Your task to perform on an android device: Clear all items from cart on bestbuy.com. Search for rayovac triple a on bestbuy.com, select the first entry, add it to the cart, then select checkout. Image 0: 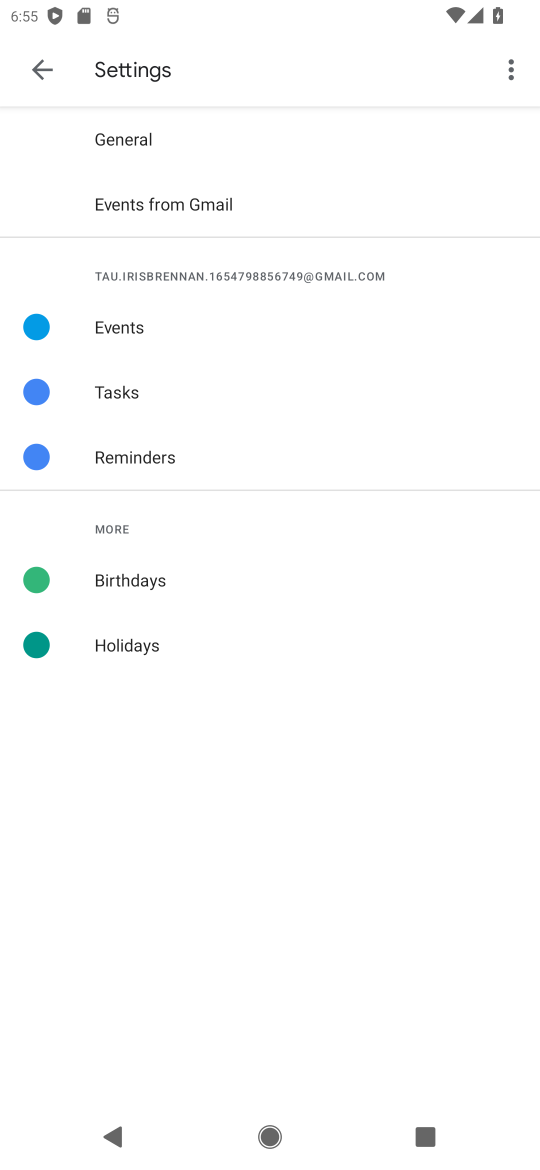
Step 0: press home button
Your task to perform on an android device: Clear all items from cart on bestbuy.com. Search for rayovac triple a on bestbuy.com, select the first entry, add it to the cart, then select checkout. Image 1: 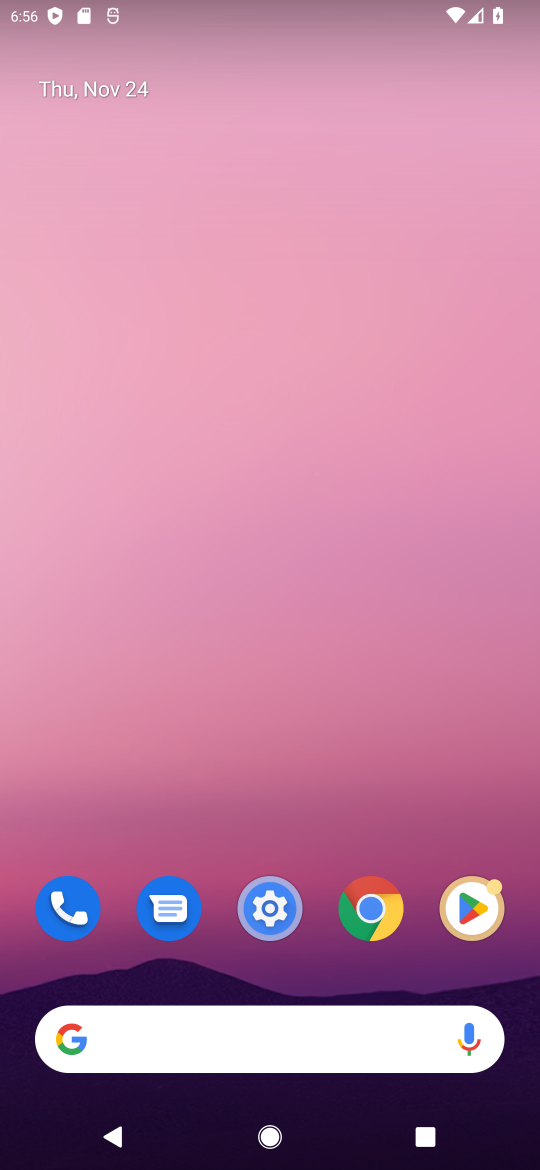
Step 1: click (159, 1041)
Your task to perform on an android device: Clear all items from cart on bestbuy.com. Search for rayovac triple a on bestbuy.com, select the first entry, add it to the cart, then select checkout. Image 2: 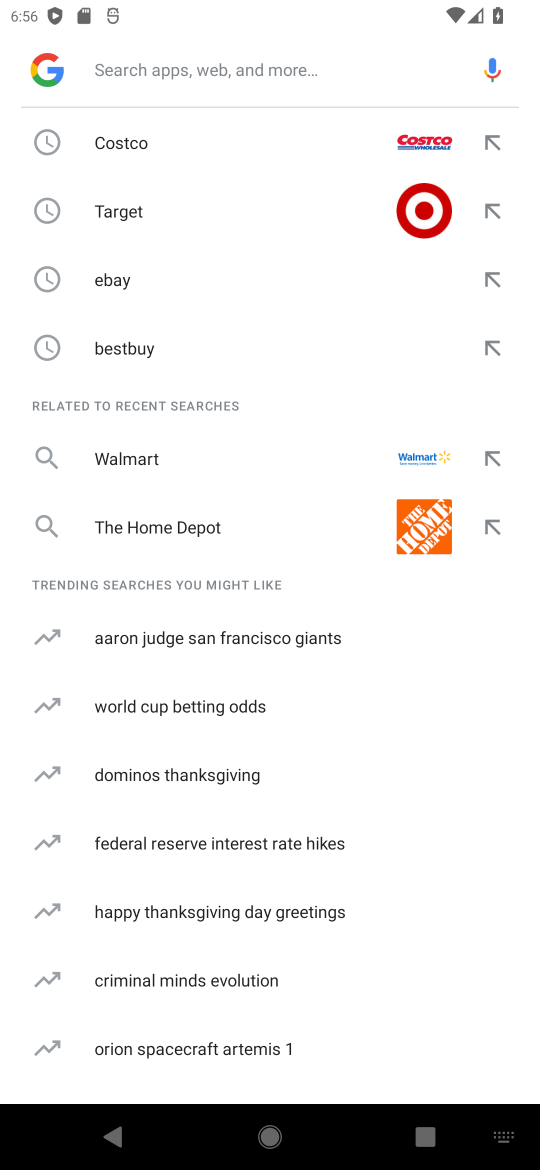
Step 2: type "bestbuy"
Your task to perform on an android device: Clear all items from cart on bestbuy.com. Search for rayovac triple a on bestbuy.com, select the first entry, add it to the cart, then select checkout. Image 3: 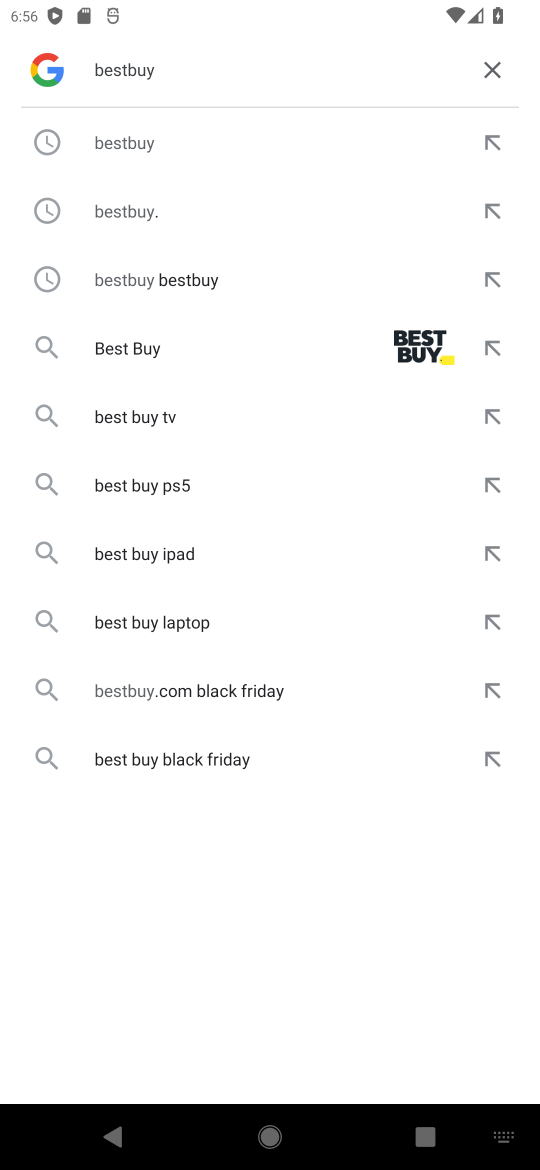
Step 3: click (442, 356)
Your task to perform on an android device: Clear all items from cart on bestbuy.com. Search for rayovac triple a on bestbuy.com, select the first entry, add it to the cart, then select checkout. Image 4: 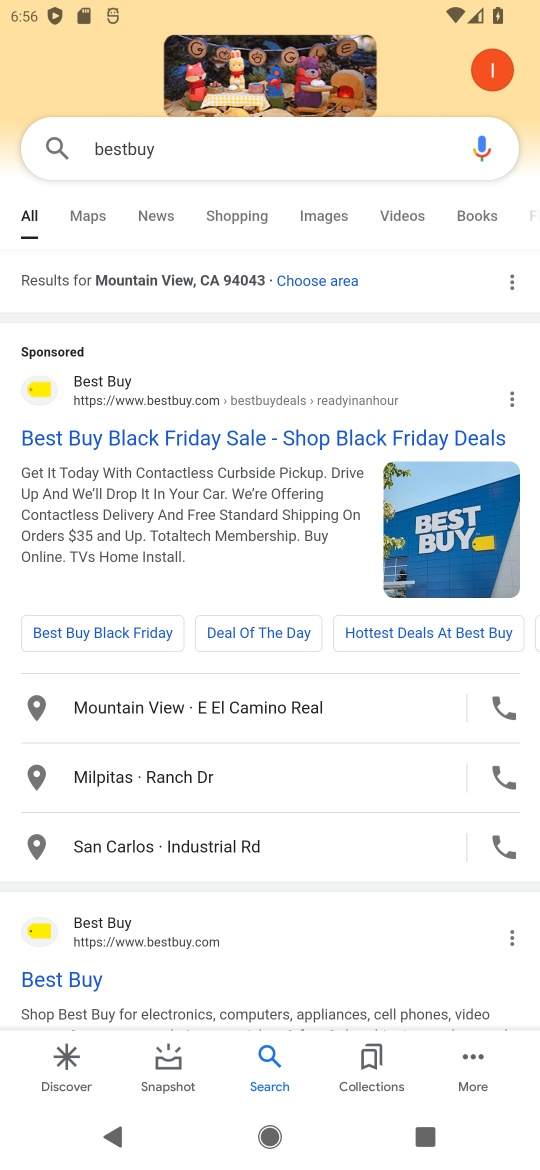
Step 4: click (273, 429)
Your task to perform on an android device: Clear all items from cart on bestbuy.com. Search for rayovac triple a on bestbuy.com, select the first entry, add it to the cart, then select checkout. Image 5: 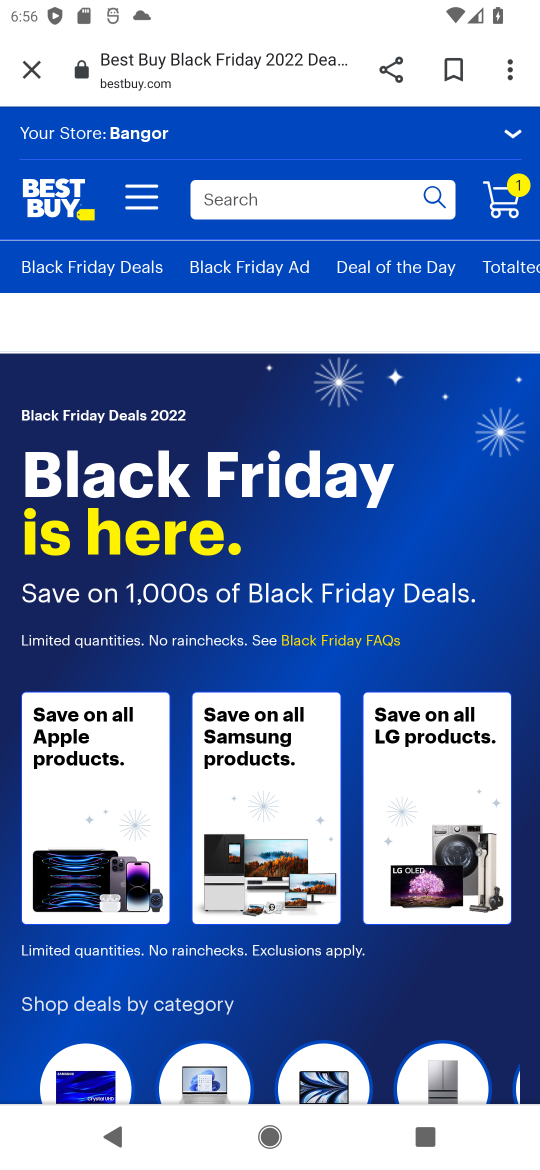
Step 5: click (245, 215)
Your task to perform on an android device: Clear all items from cart on bestbuy.com. Search for rayovac triple a on bestbuy.com, select the first entry, add it to the cart, then select checkout. Image 6: 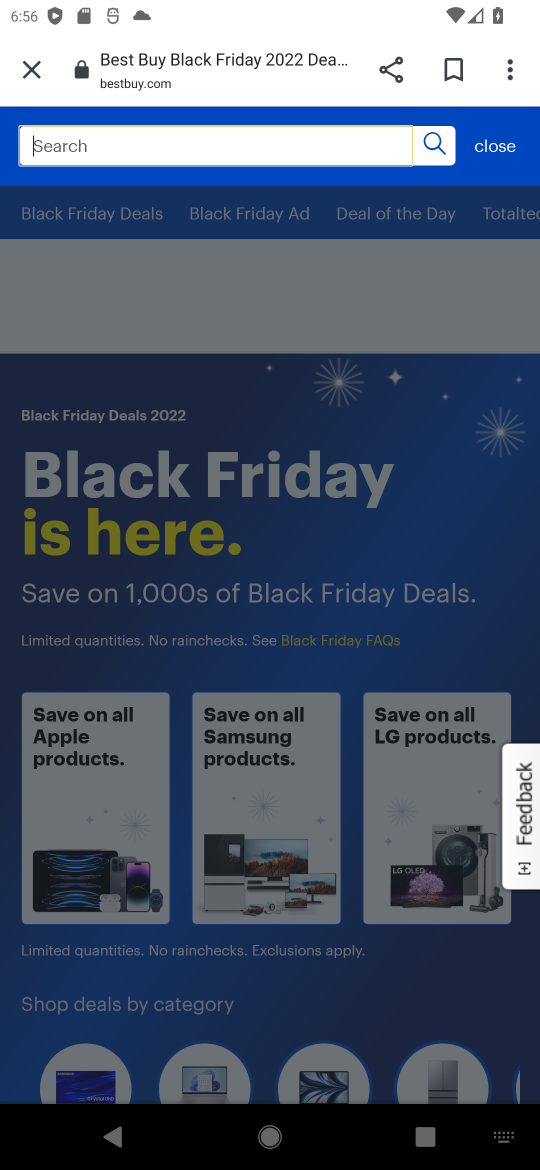
Step 6: type "rayovac"
Your task to perform on an android device: Clear all items from cart on bestbuy.com. Search for rayovac triple a on bestbuy.com, select the first entry, add it to the cart, then select checkout. Image 7: 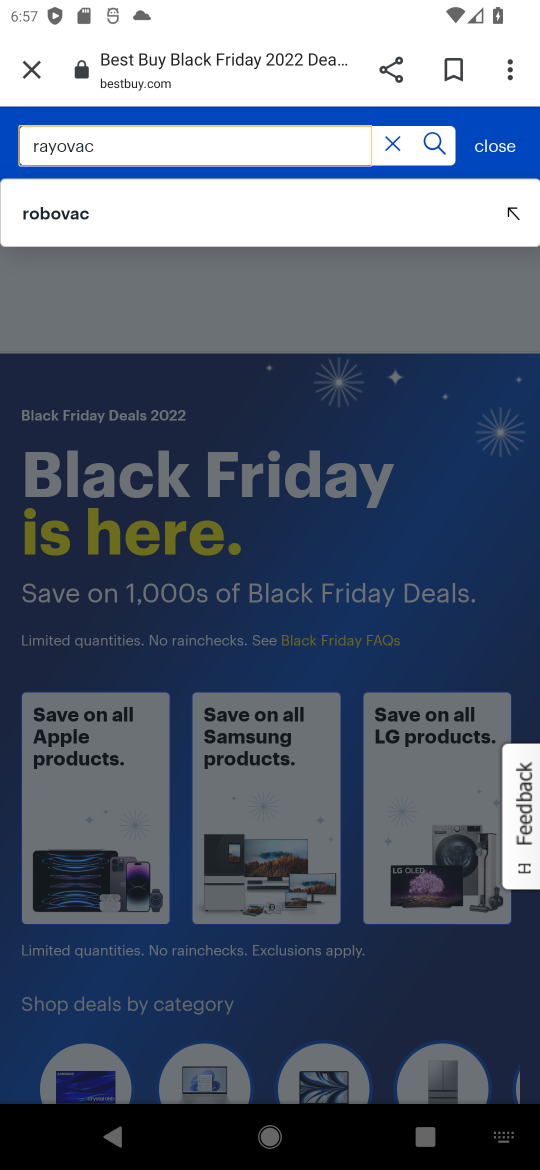
Step 7: click (510, 207)
Your task to perform on an android device: Clear all items from cart on bestbuy.com. Search for rayovac triple a on bestbuy.com, select the first entry, add it to the cart, then select checkout. Image 8: 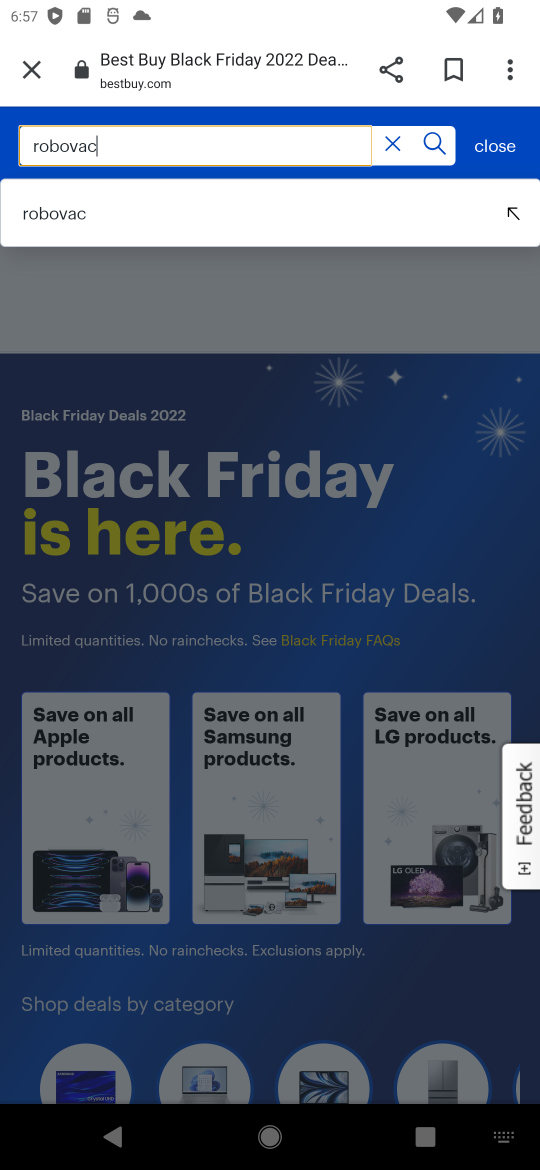
Step 8: click (432, 139)
Your task to perform on an android device: Clear all items from cart on bestbuy.com. Search for rayovac triple a on bestbuy.com, select the first entry, add it to the cart, then select checkout. Image 9: 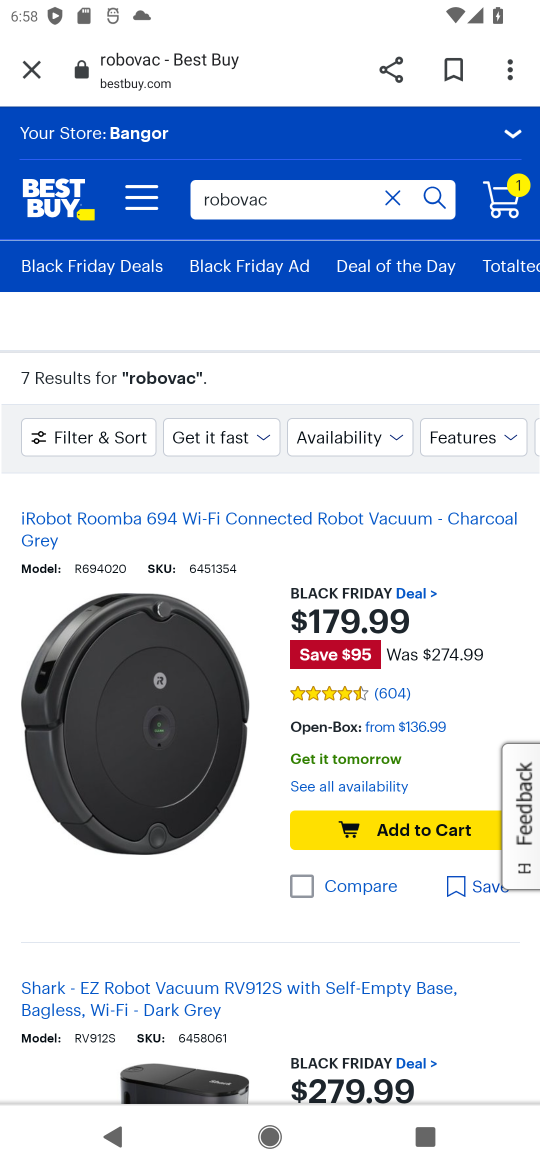
Step 9: click (423, 820)
Your task to perform on an android device: Clear all items from cart on bestbuy.com. Search for rayovac triple a on bestbuy.com, select the first entry, add it to the cart, then select checkout. Image 10: 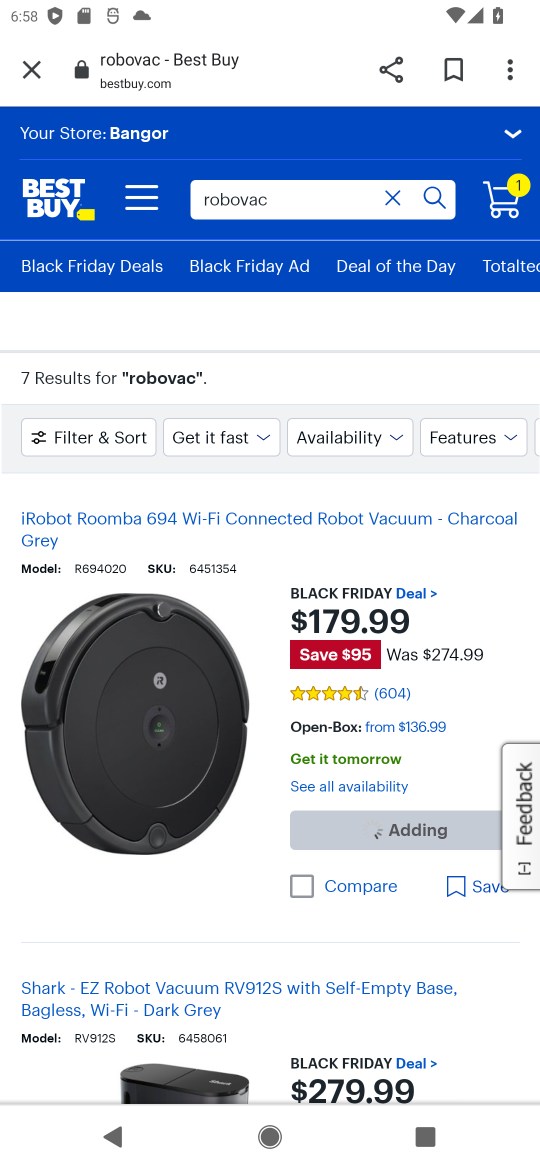
Step 10: task complete